Your task to perform on an android device: Open settings on Google Maps Image 0: 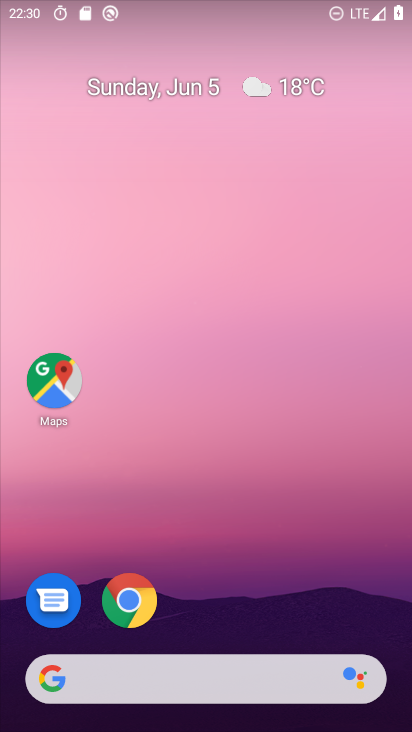
Step 0: click (58, 385)
Your task to perform on an android device: Open settings on Google Maps Image 1: 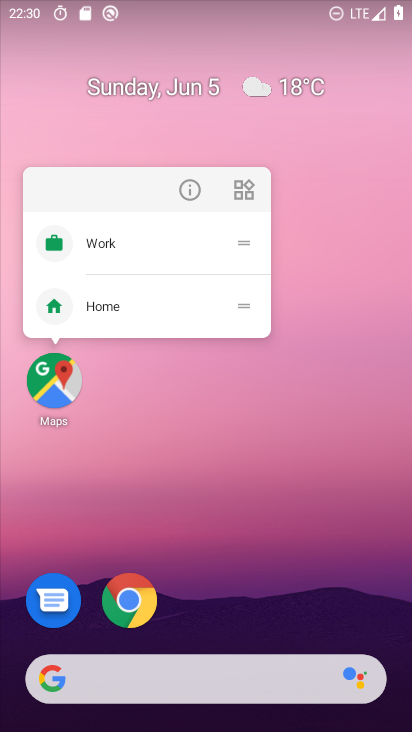
Step 1: click (59, 384)
Your task to perform on an android device: Open settings on Google Maps Image 2: 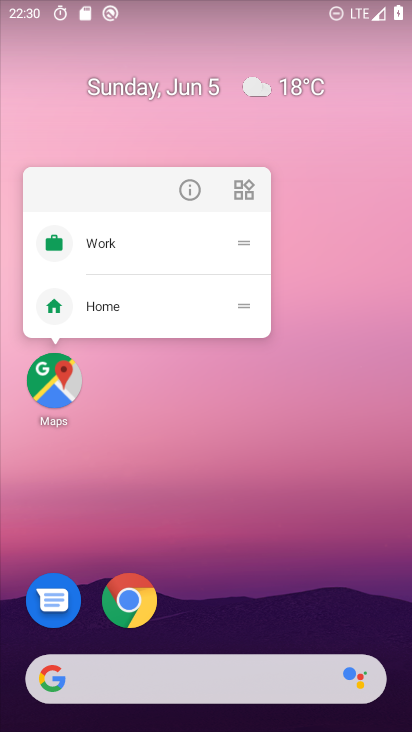
Step 2: click (54, 398)
Your task to perform on an android device: Open settings on Google Maps Image 3: 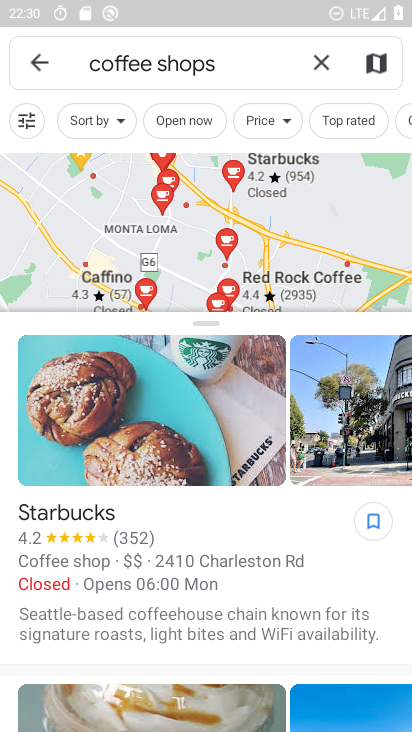
Step 3: click (37, 58)
Your task to perform on an android device: Open settings on Google Maps Image 4: 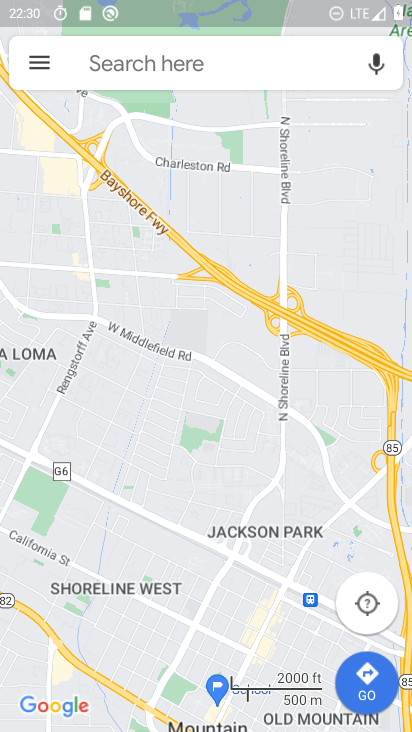
Step 4: click (37, 58)
Your task to perform on an android device: Open settings on Google Maps Image 5: 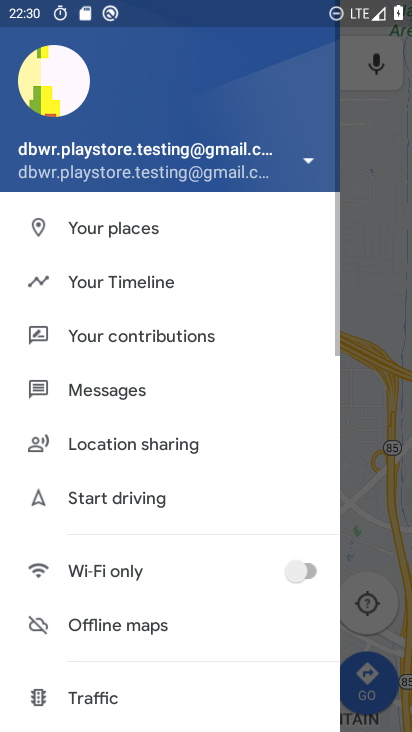
Step 5: drag from (146, 673) to (95, 113)
Your task to perform on an android device: Open settings on Google Maps Image 6: 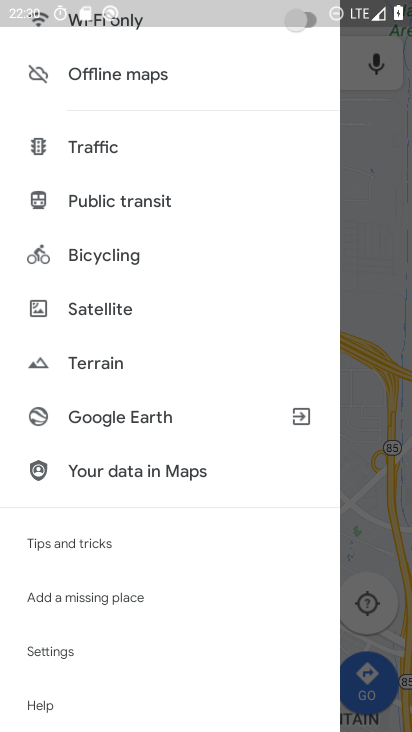
Step 6: click (59, 648)
Your task to perform on an android device: Open settings on Google Maps Image 7: 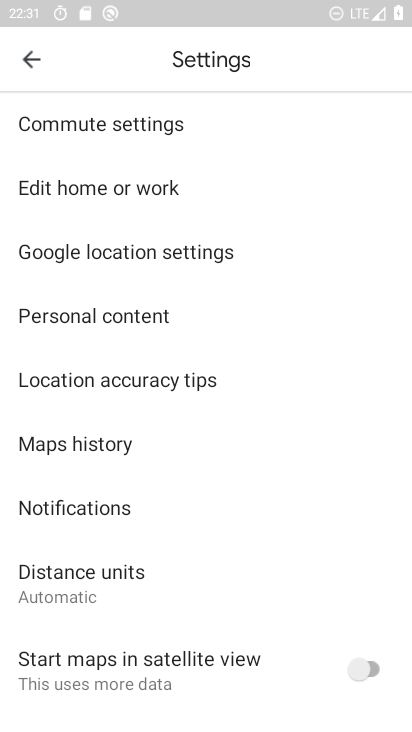
Step 7: task complete